Your task to perform on an android device: Open calendar and show me the third week of next month Image 0: 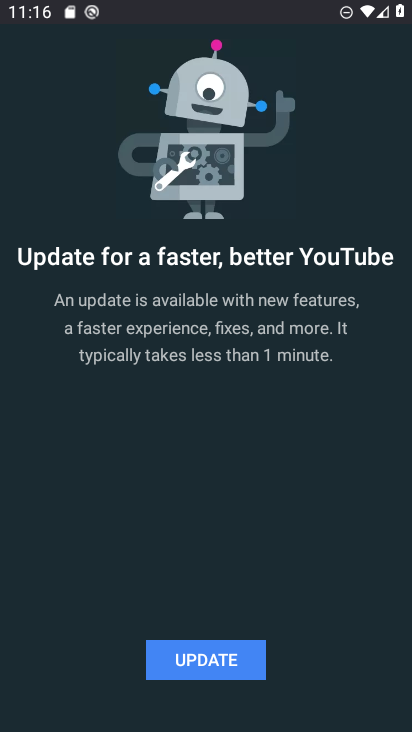
Step 0: press home button
Your task to perform on an android device: Open calendar and show me the third week of next month Image 1: 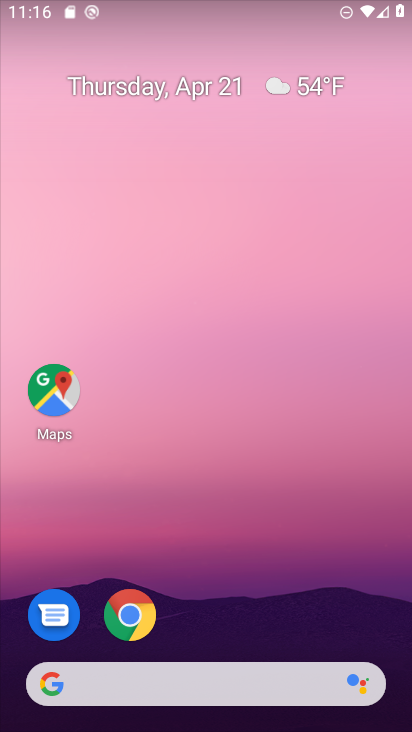
Step 1: drag from (264, 615) to (295, 164)
Your task to perform on an android device: Open calendar and show me the third week of next month Image 2: 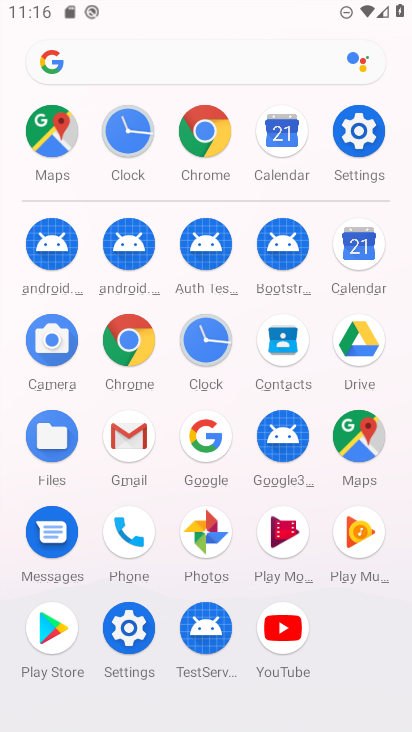
Step 2: click (363, 249)
Your task to perform on an android device: Open calendar and show me the third week of next month Image 3: 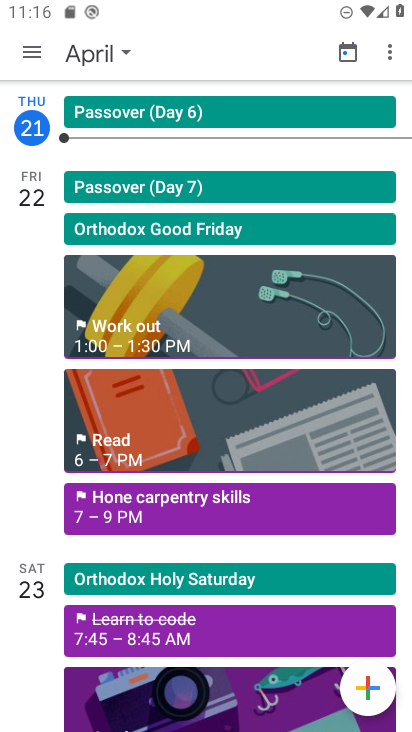
Step 3: click (101, 51)
Your task to perform on an android device: Open calendar and show me the third week of next month Image 4: 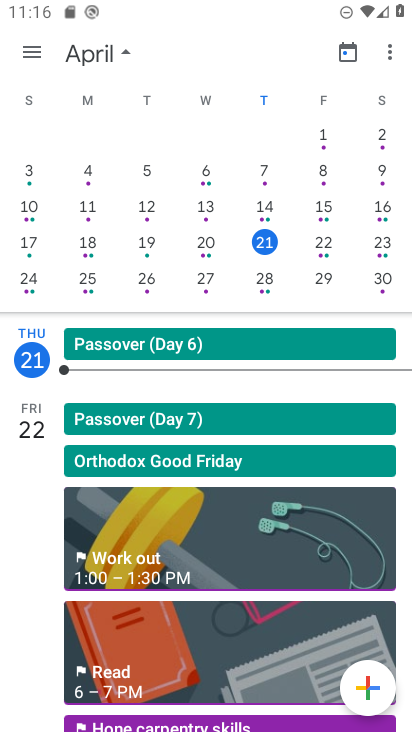
Step 4: drag from (406, 206) to (1, 231)
Your task to perform on an android device: Open calendar and show me the third week of next month Image 5: 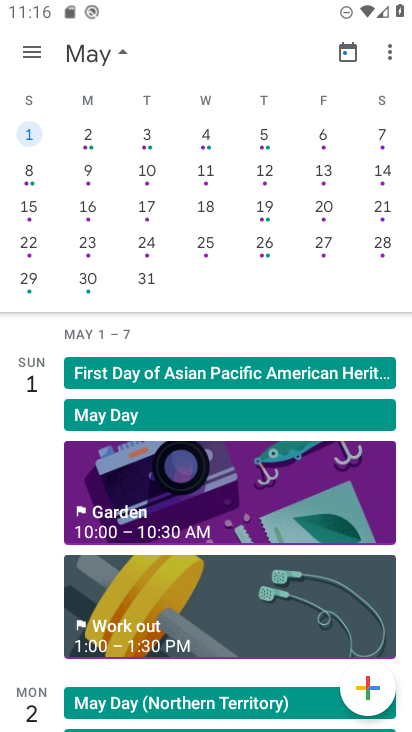
Step 5: click (37, 206)
Your task to perform on an android device: Open calendar and show me the third week of next month Image 6: 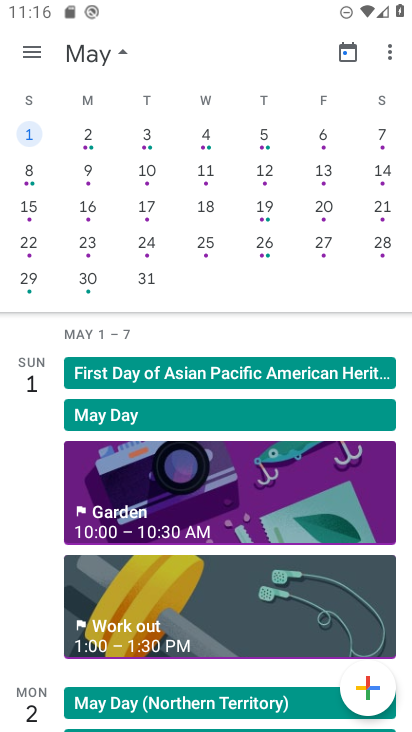
Step 6: click (30, 212)
Your task to perform on an android device: Open calendar and show me the third week of next month Image 7: 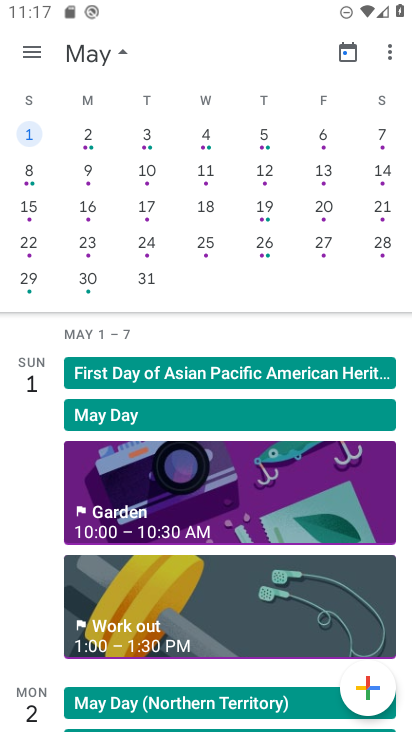
Step 7: click (34, 216)
Your task to perform on an android device: Open calendar and show me the third week of next month Image 8: 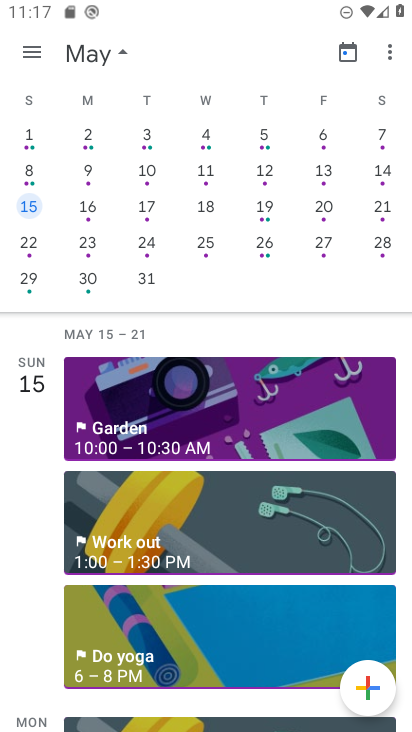
Step 8: task complete